Your task to perform on an android device: Open Chrome and go to settings Image 0: 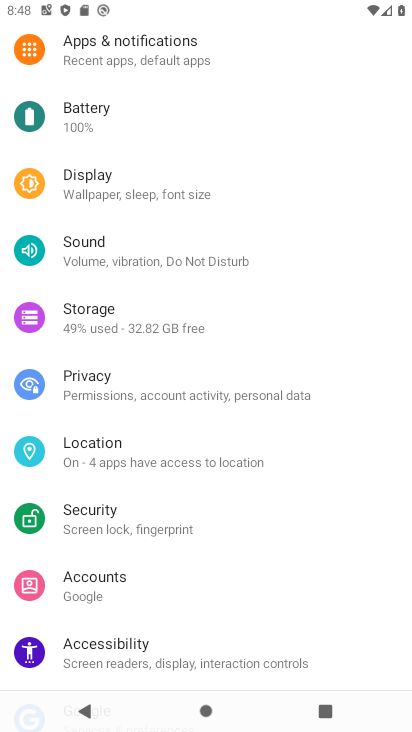
Step 0: press home button
Your task to perform on an android device: Open Chrome and go to settings Image 1: 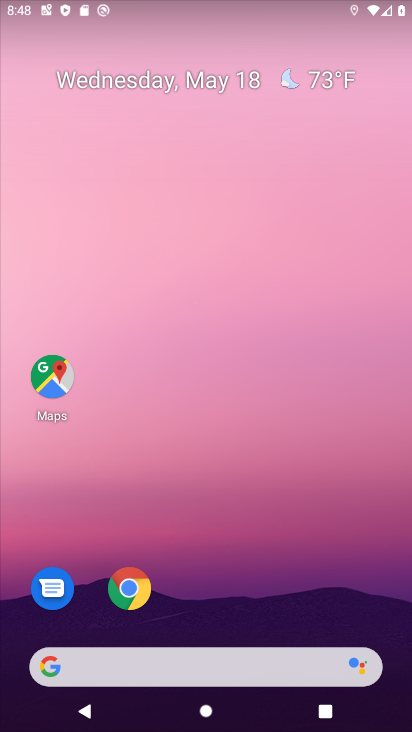
Step 1: drag from (342, 598) to (347, 203)
Your task to perform on an android device: Open Chrome and go to settings Image 2: 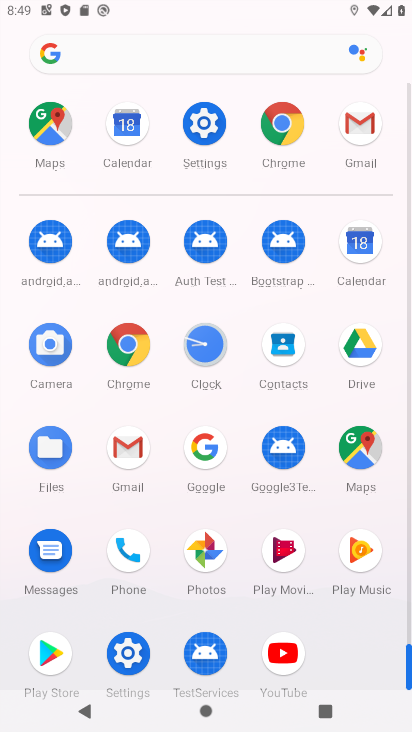
Step 2: click (135, 331)
Your task to perform on an android device: Open Chrome and go to settings Image 3: 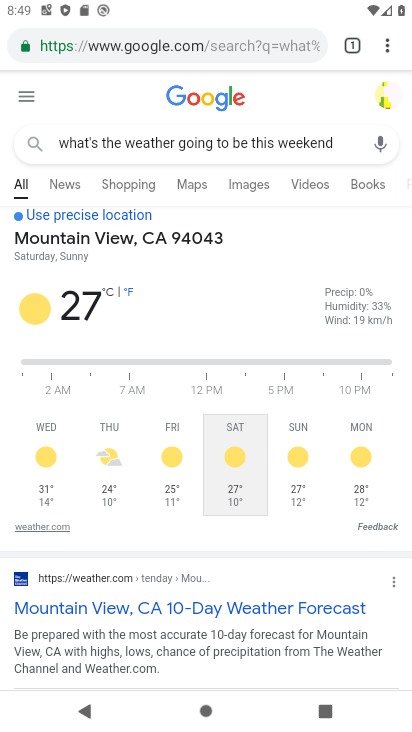
Step 3: task complete